Your task to perform on an android device: toggle location history Image 0: 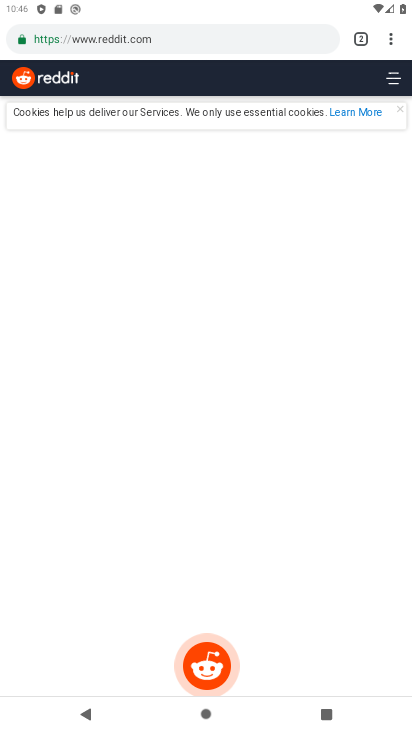
Step 0: press home button
Your task to perform on an android device: toggle location history Image 1: 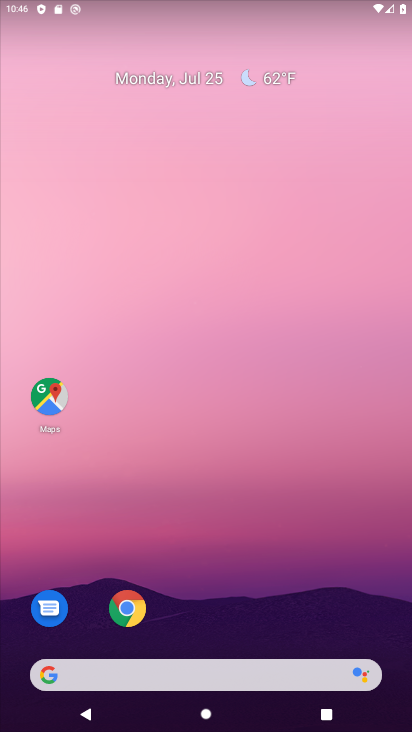
Step 1: drag from (183, 670) to (181, 12)
Your task to perform on an android device: toggle location history Image 2: 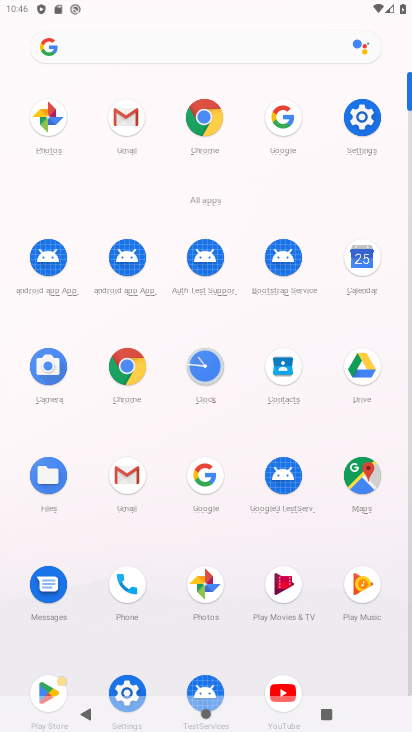
Step 2: click (356, 117)
Your task to perform on an android device: toggle location history Image 3: 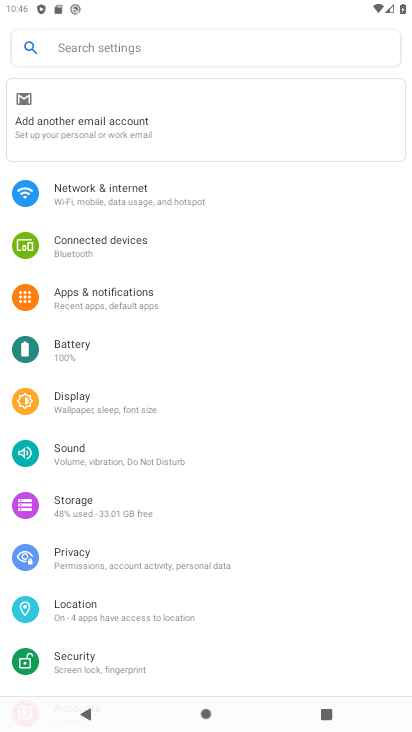
Step 3: click (87, 617)
Your task to perform on an android device: toggle location history Image 4: 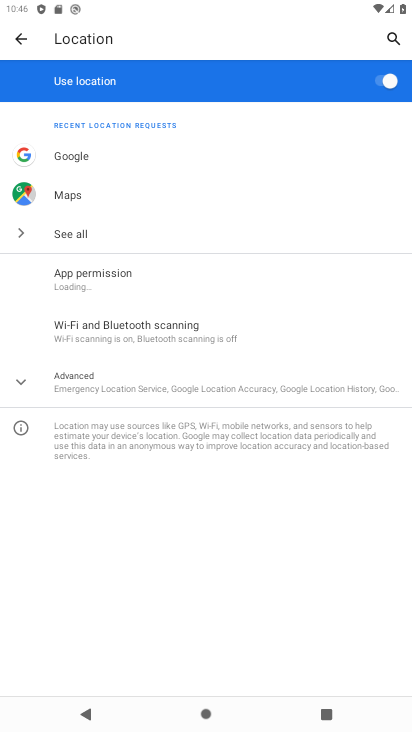
Step 4: click (88, 382)
Your task to perform on an android device: toggle location history Image 5: 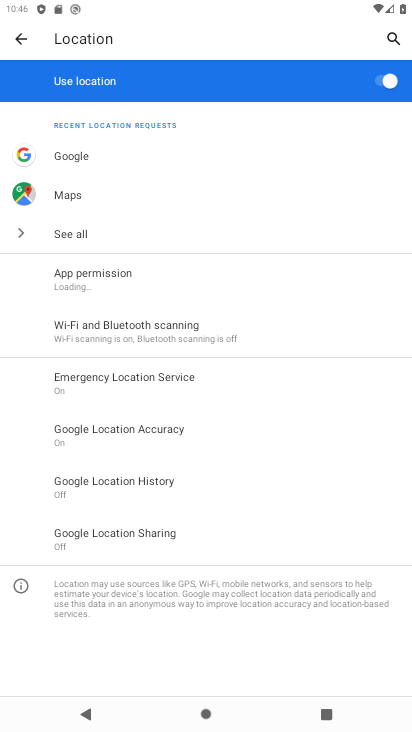
Step 5: click (135, 485)
Your task to perform on an android device: toggle location history Image 6: 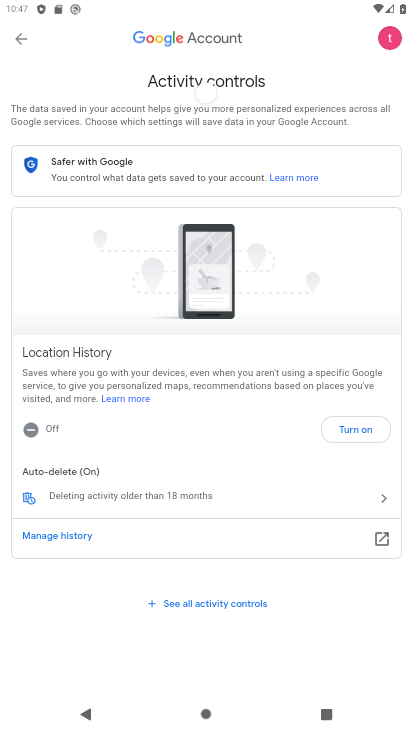
Step 6: click (362, 430)
Your task to perform on an android device: toggle location history Image 7: 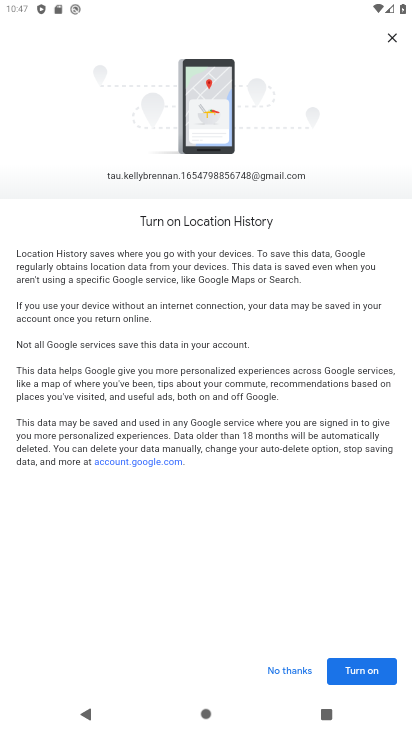
Step 7: click (356, 661)
Your task to perform on an android device: toggle location history Image 8: 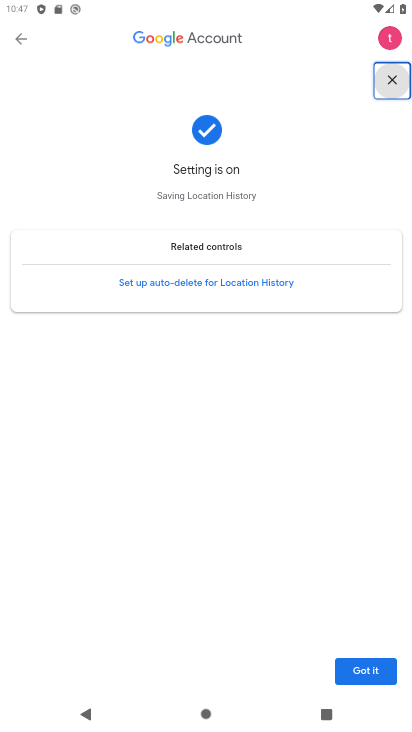
Step 8: click (367, 673)
Your task to perform on an android device: toggle location history Image 9: 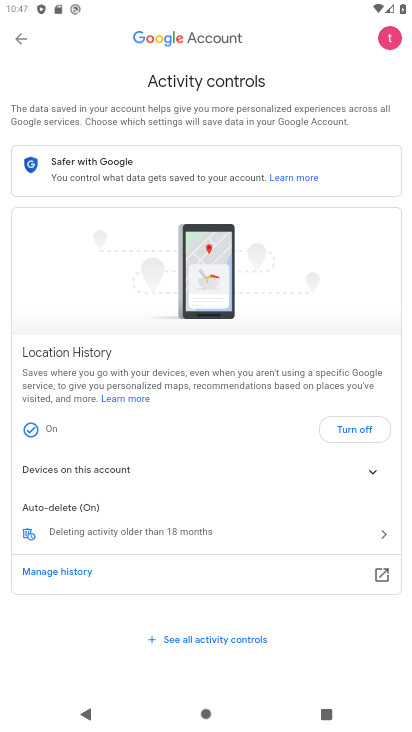
Step 9: task complete